Your task to perform on an android device: Find coffee shops on Maps Image 0: 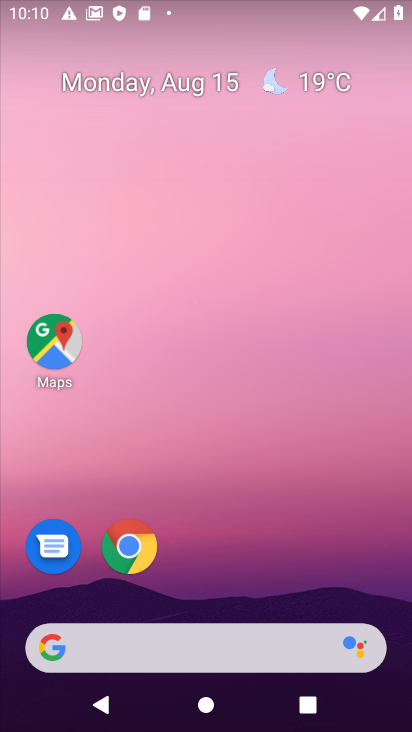
Step 0: drag from (210, 397) to (196, 1)
Your task to perform on an android device: Find coffee shops on Maps Image 1: 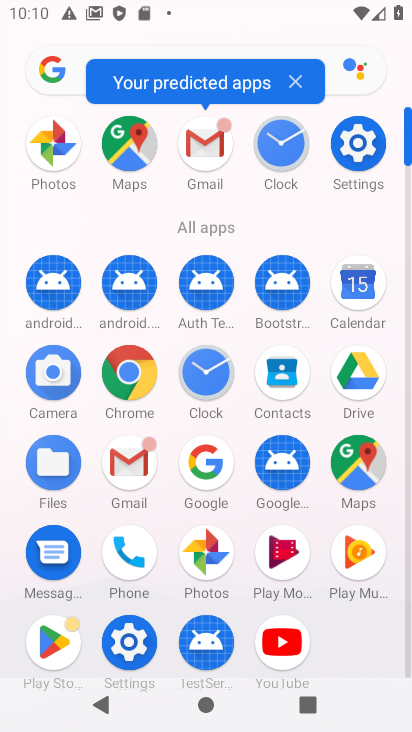
Step 1: click (360, 464)
Your task to perform on an android device: Find coffee shops on Maps Image 2: 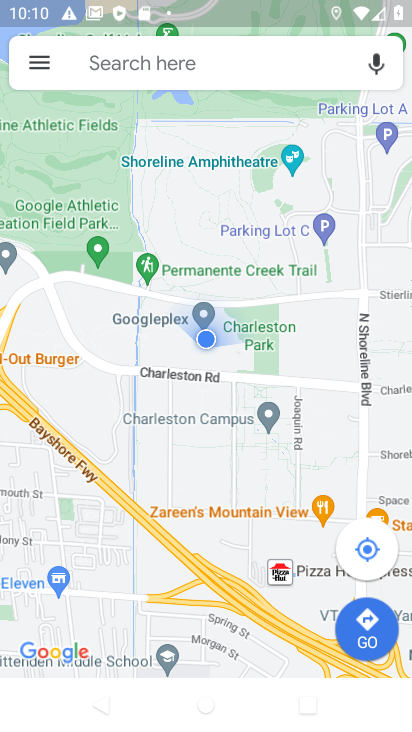
Step 2: click (180, 60)
Your task to perform on an android device: Find coffee shops on Maps Image 3: 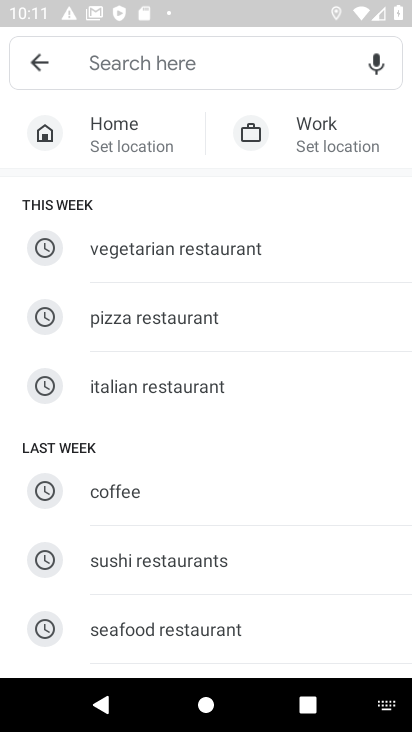
Step 3: type "coffee shops"
Your task to perform on an android device: Find coffee shops on Maps Image 4: 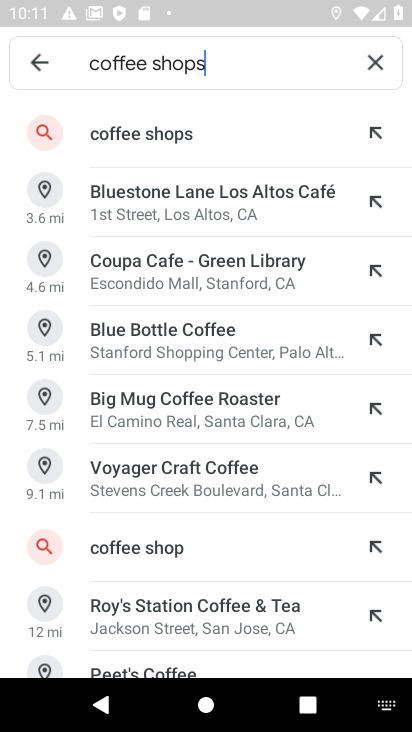
Step 4: click (159, 130)
Your task to perform on an android device: Find coffee shops on Maps Image 5: 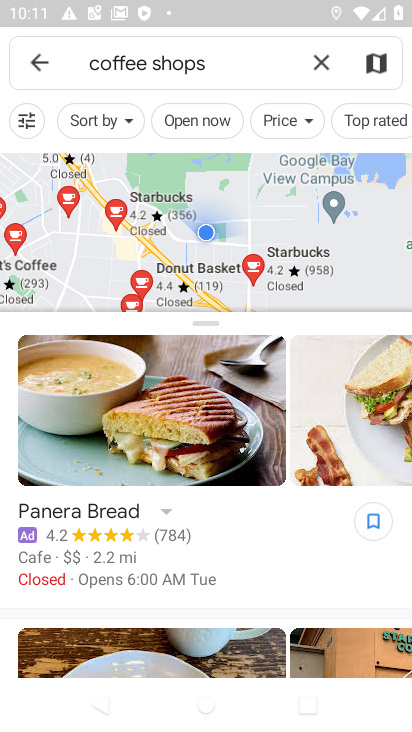
Step 5: task complete